Your task to perform on an android device: Open the web browser Image 0: 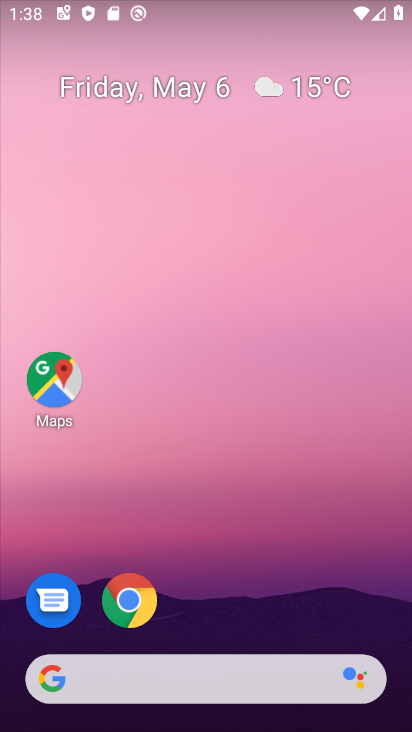
Step 0: drag from (304, 601) to (268, 21)
Your task to perform on an android device: Open the web browser Image 1: 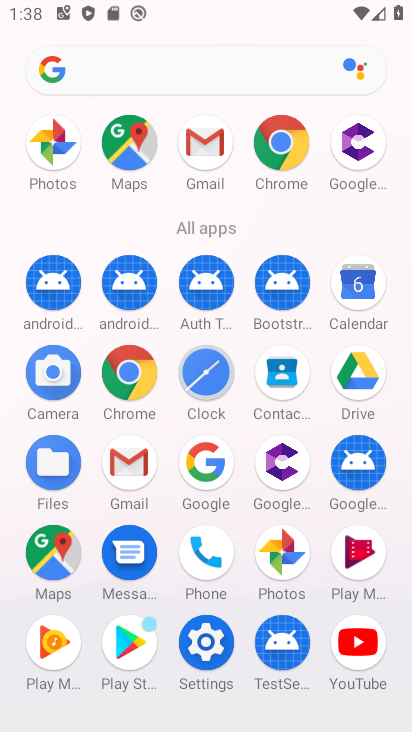
Step 1: drag from (8, 564) to (9, 236)
Your task to perform on an android device: Open the web browser Image 2: 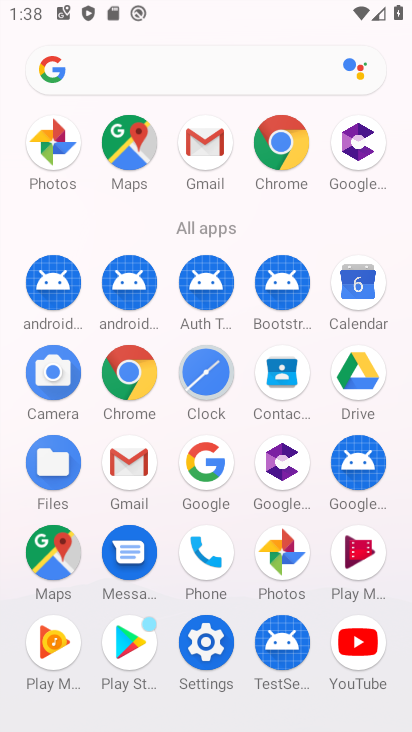
Step 2: click (281, 144)
Your task to perform on an android device: Open the web browser Image 3: 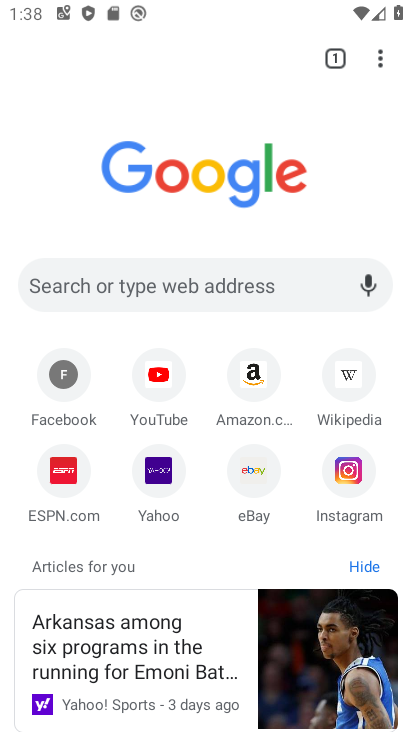
Step 3: click (196, 276)
Your task to perform on an android device: Open the web browser Image 4: 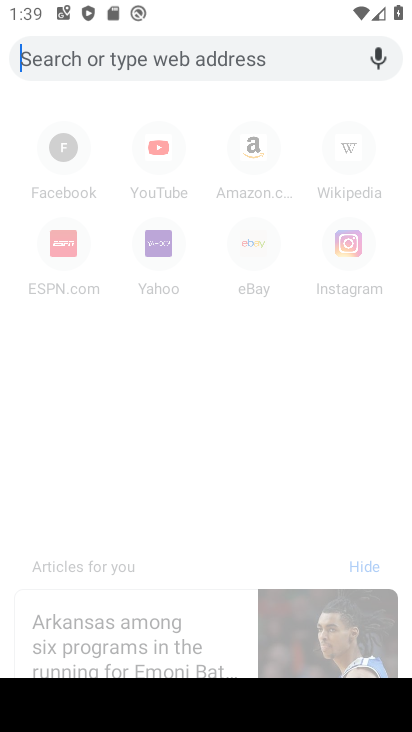
Step 4: task complete